Your task to perform on an android device: remove spam from my inbox in the gmail app Image 0: 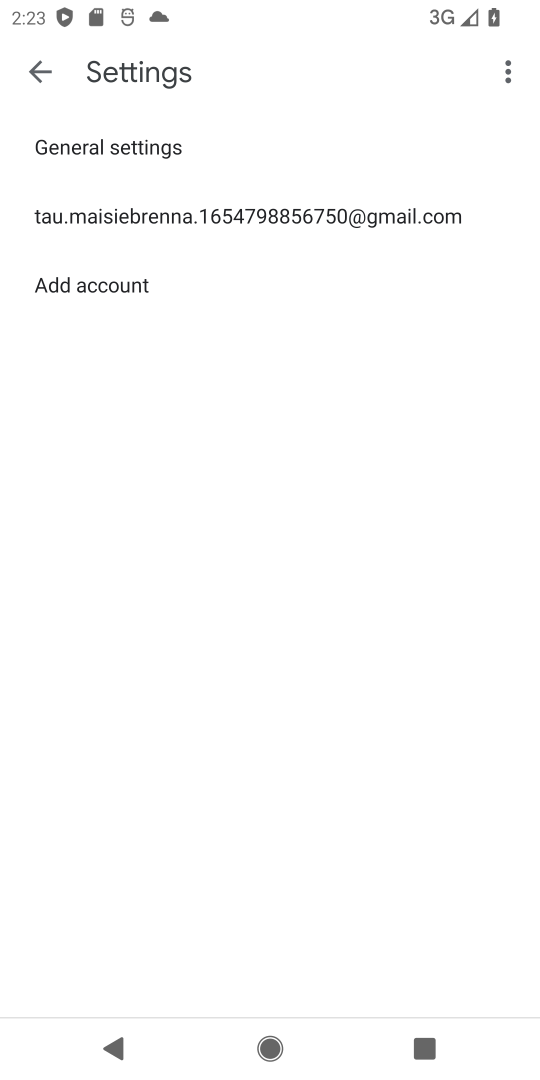
Step 0: press home button
Your task to perform on an android device: remove spam from my inbox in the gmail app Image 1: 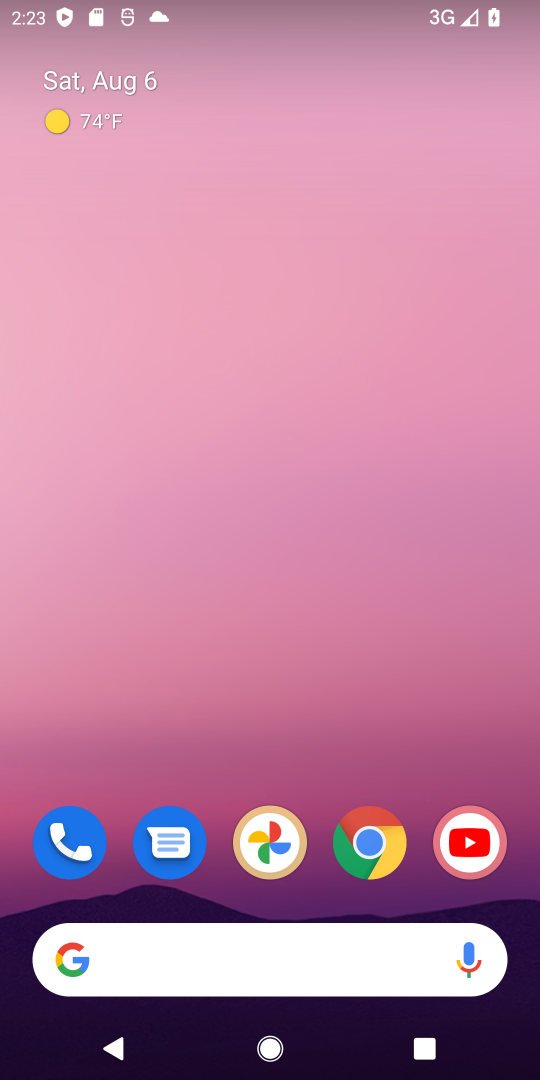
Step 1: drag from (305, 604) to (333, 24)
Your task to perform on an android device: remove spam from my inbox in the gmail app Image 2: 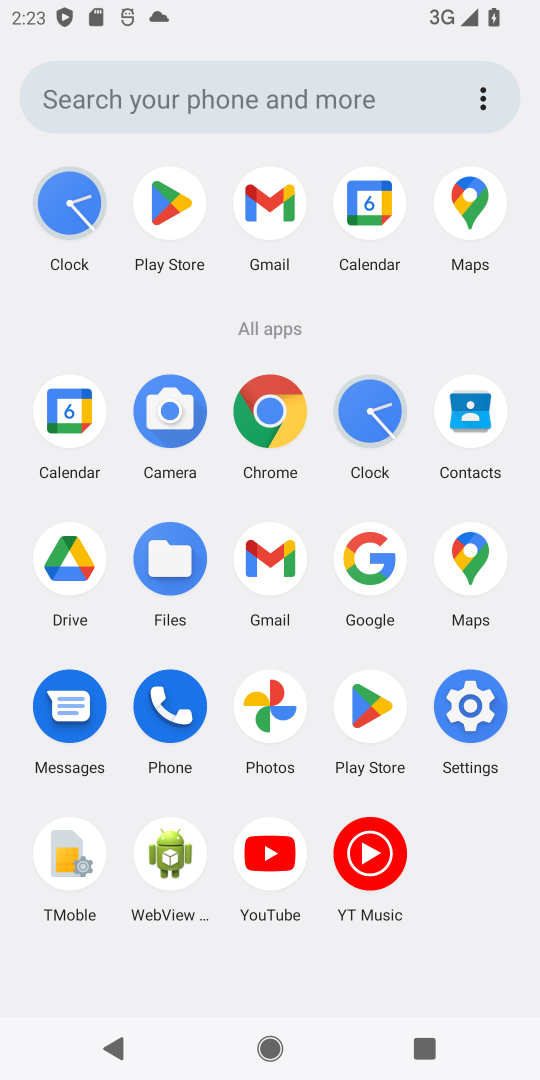
Step 2: click (254, 222)
Your task to perform on an android device: remove spam from my inbox in the gmail app Image 3: 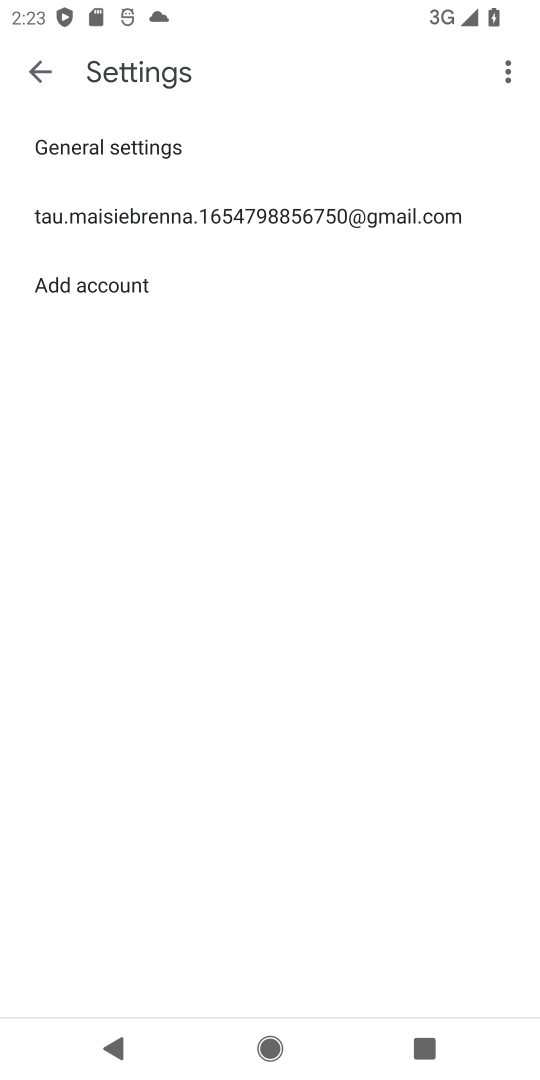
Step 3: click (33, 76)
Your task to perform on an android device: remove spam from my inbox in the gmail app Image 4: 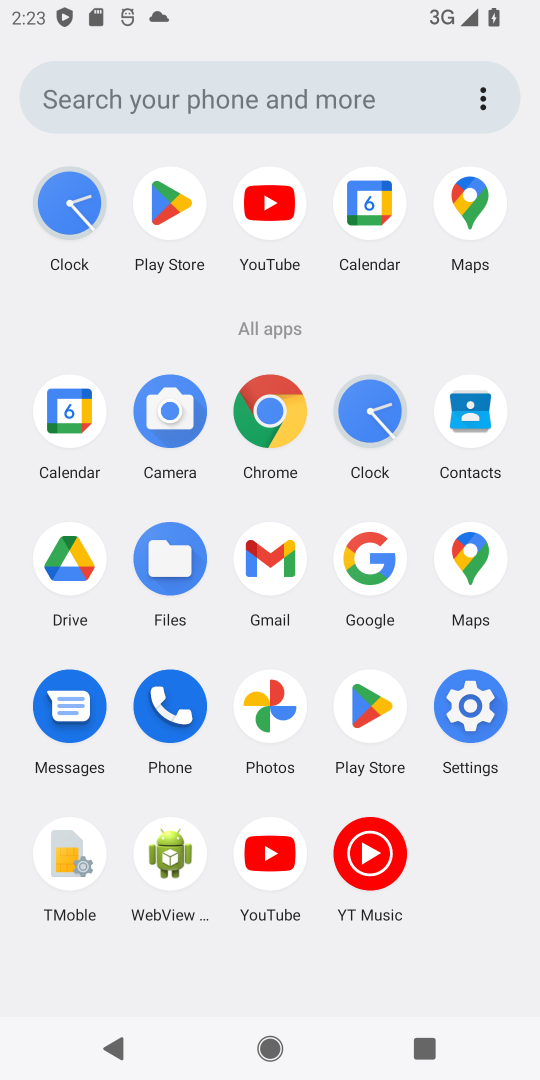
Step 4: click (271, 573)
Your task to perform on an android device: remove spam from my inbox in the gmail app Image 5: 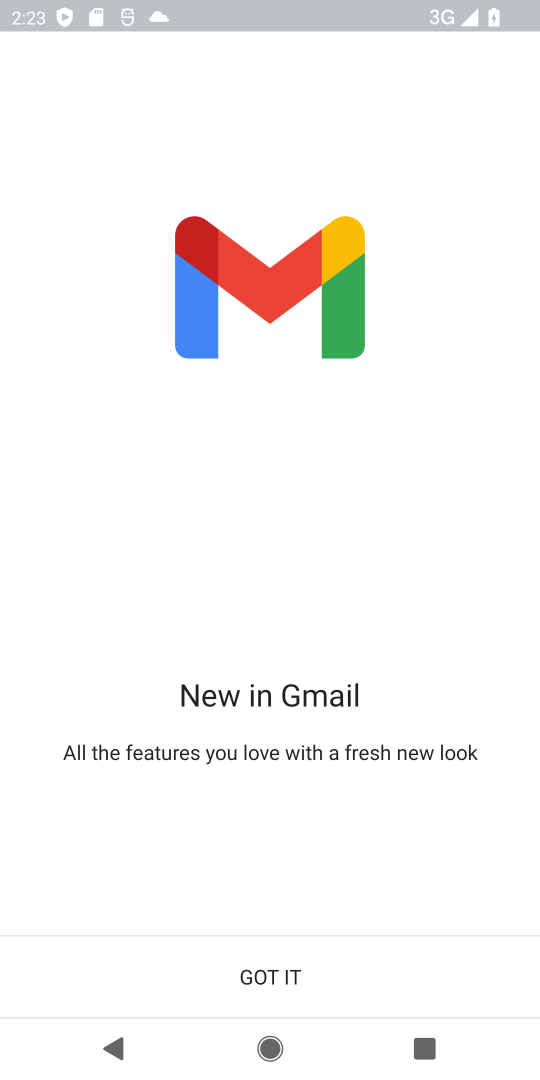
Step 5: click (262, 975)
Your task to perform on an android device: remove spam from my inbox in the gmail app Image 6: 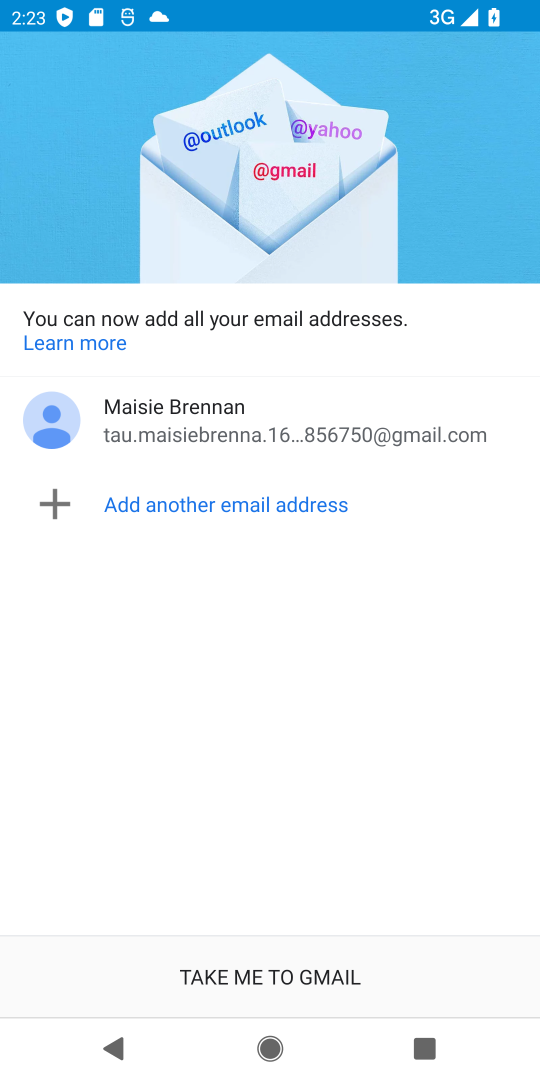
Step 6: click (233, 978)
Your task to perform on an android device: remove spam from my inbox in the gmail app Image 7: 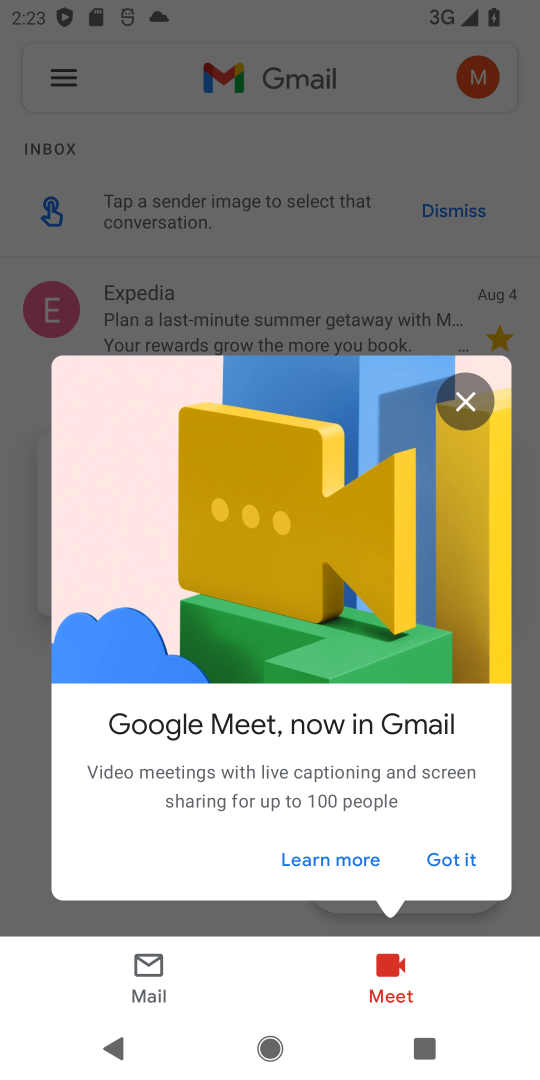
Step 7: click (470, 400)
Your task to perform on an android device: remove spam from my inbox in the gmail app Image 8: 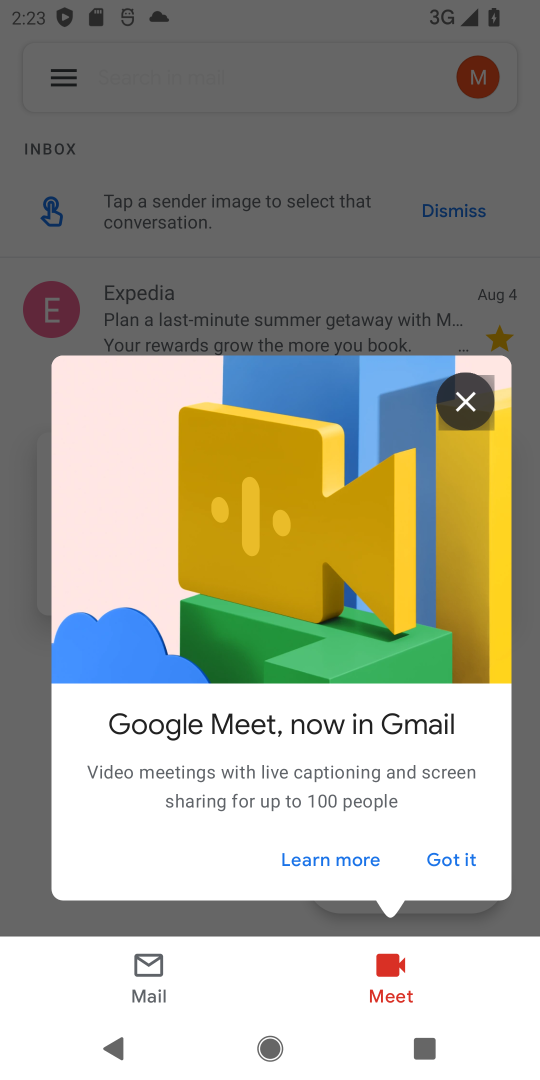
Step 8: click (66, 92)
Your task to perform on an android device: remove spam from my inbox in the gmail app Image 9: 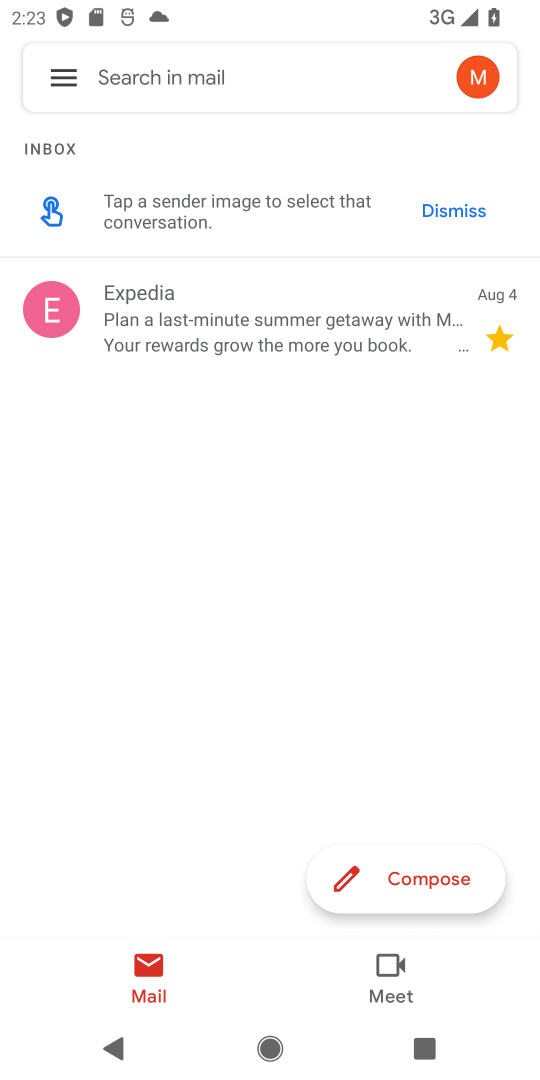
Step 9: click (66, 80)
Your task to perform on an android device: remove spam from my inbox in the gmail app Image 10: 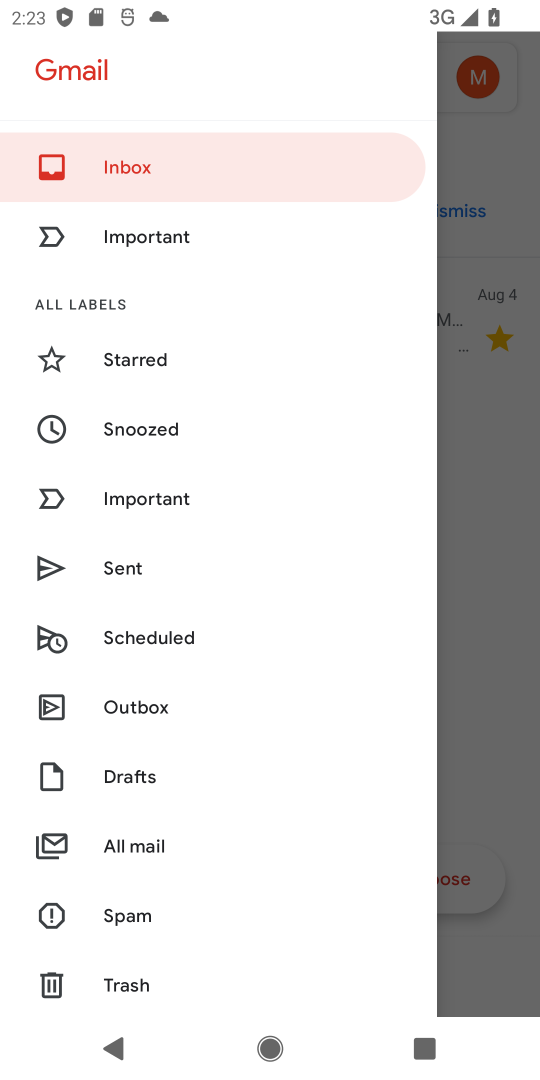
Step 10: click (138, 935)
Your task to perform on an android device: remove spam from my inbox in the gmail app Image 11: 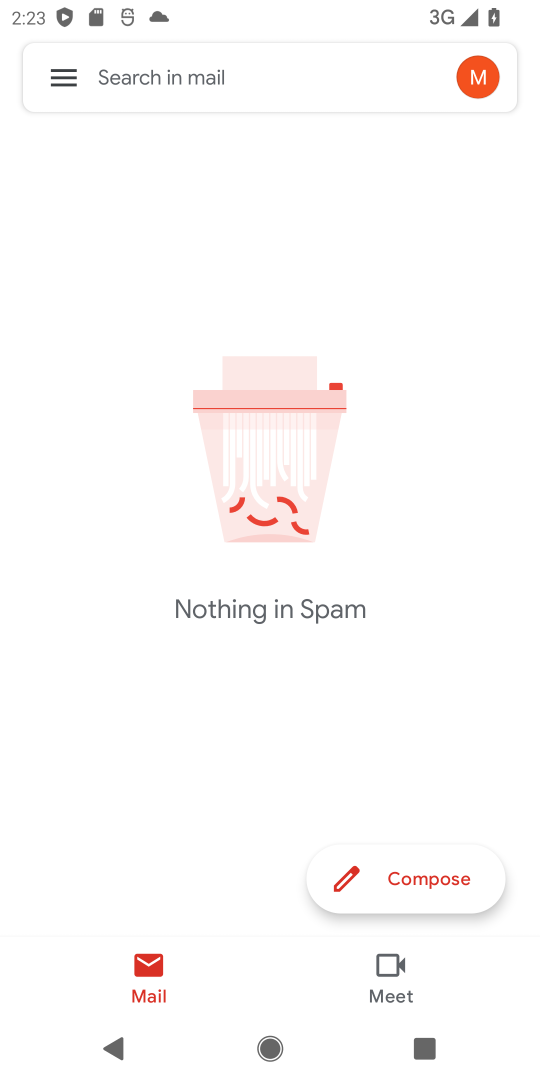
Step 11: task complete